Your task to perform on an android device: turn off priority inbox in the gmail app Image 0: 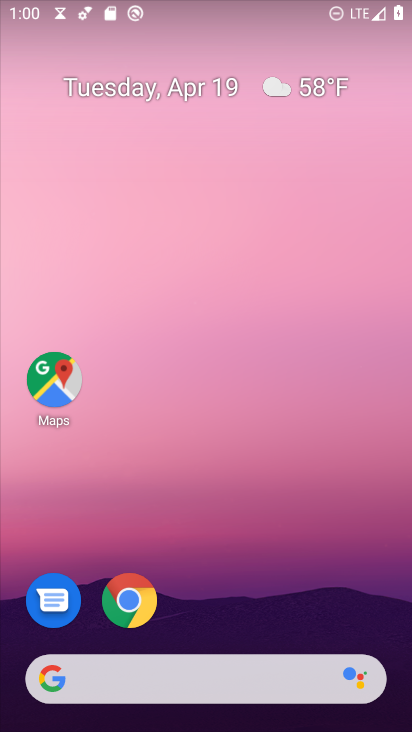
Step 0: drag from (208, 666) to (180, 37)
Your task to perform on an android device: turn off priority inbox in the gmail app Image 1: 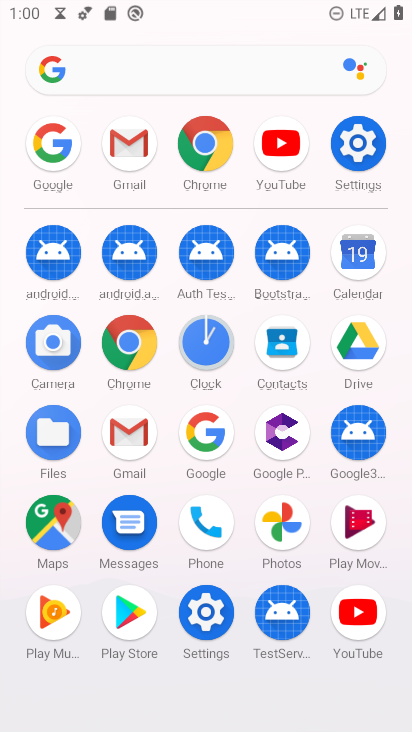
Step 1: click (123, 420)
Your task to perform on an android device: turn off priority inbox in the gmail app Image 2: 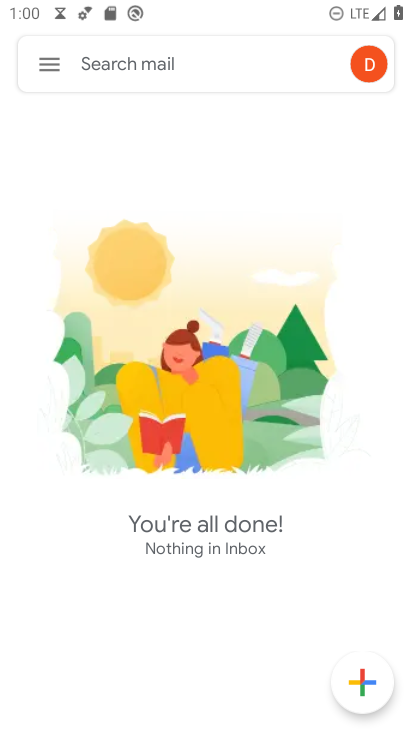
Step 2: click (47, 79)
Your task to perform on an android device: turn off priority inbox in the gmail app Image 3: 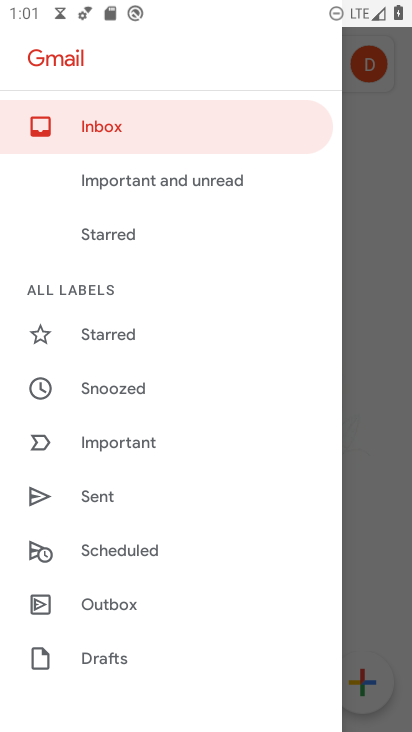
Step 3: drag from (118, 597) to (101, 148)
Your task to perform on an android device: turn off priority inbox in the gmail app Image 4: 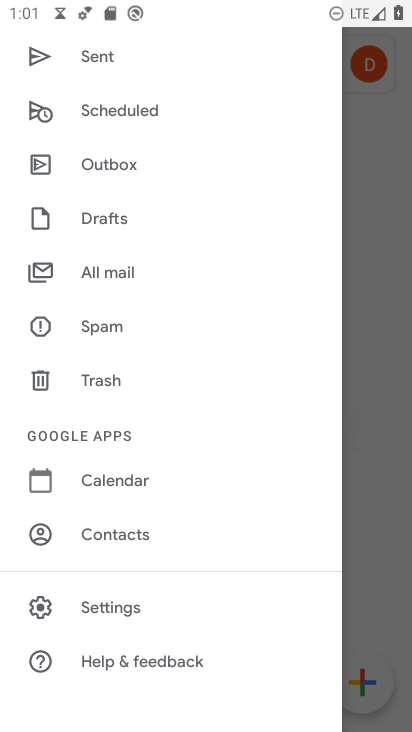
Step 4: click (122, 616)
Your task to perform on an android device: turn off priority inbox in the gmail app Image 5: 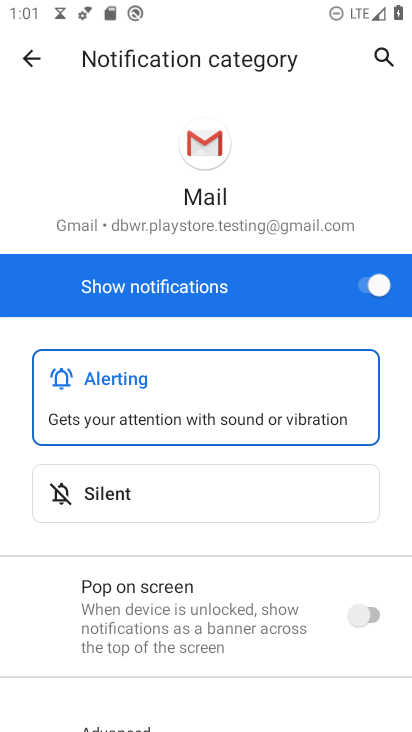
Step 5: press back button
Your task to perform on an android device: turn off priority inbox in the gmail app Image 6: 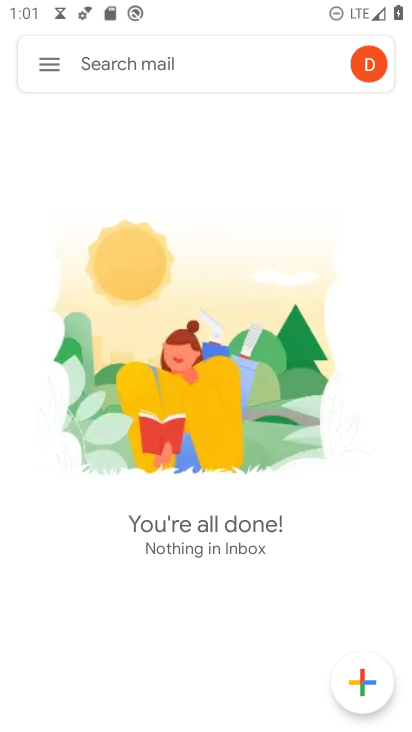
Step 6: click (43, 47)
Your task to perform on an android device: turn off priority inbox in the gmail app Image 7: 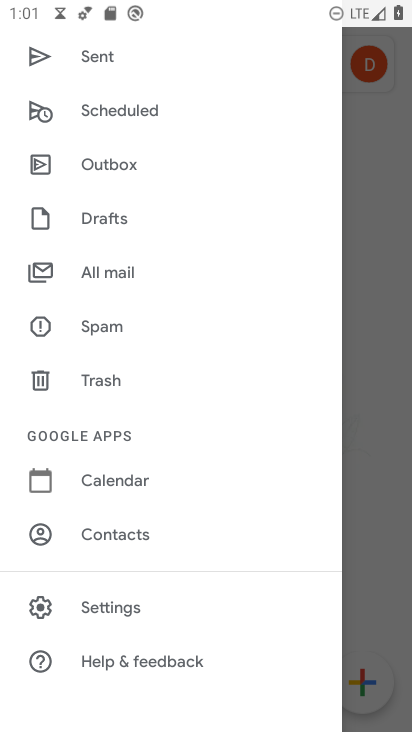
Step 7: click (93, 606)
Your task to perform on an android device: turn off priority inbox in the gmail app Image 8: 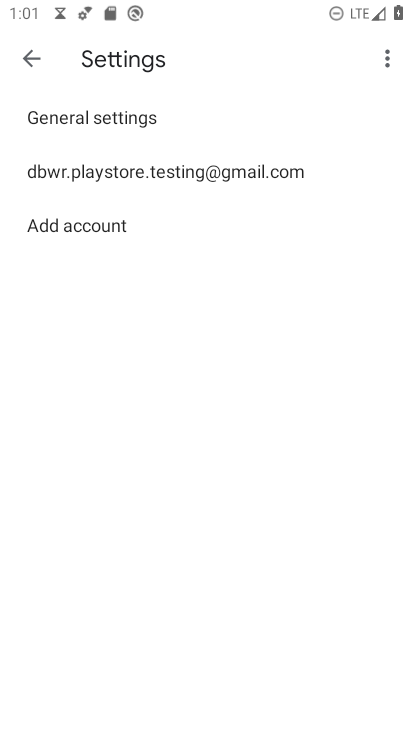
Step 8: click (163, 171)
Your task to perform on an android device: turn off priority inbox in the gmail app Image 9: 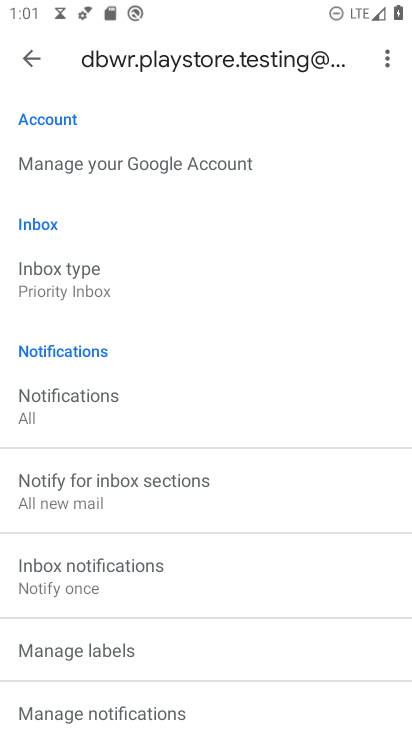
Step 9: click (71, 284)
Your task to perform on an android device: turn off priority inbox in the gmail app Image 10: 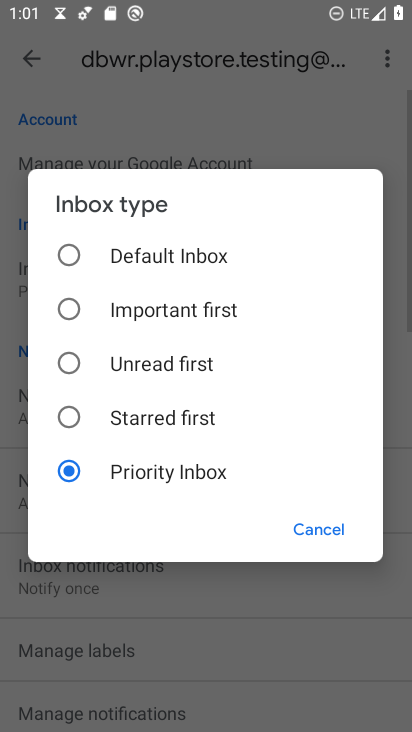
Step 10: click (139, 406)
Your task to perform on an android device: turn off priority inbox in the gmail app Image 11: 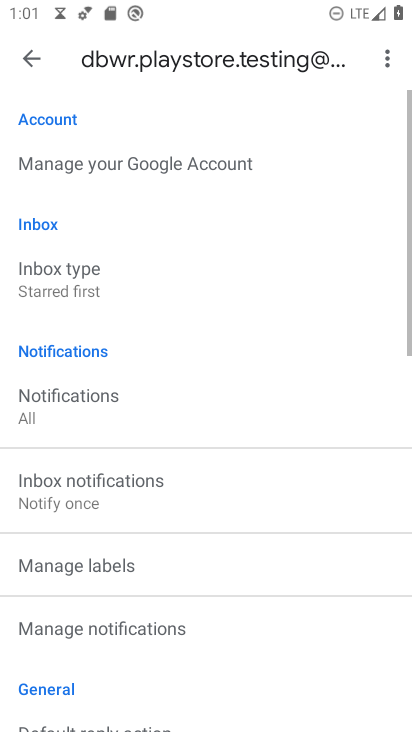
Step 11: task complete